Your task to perform on an android device: find photos in the google photos app Image 0: 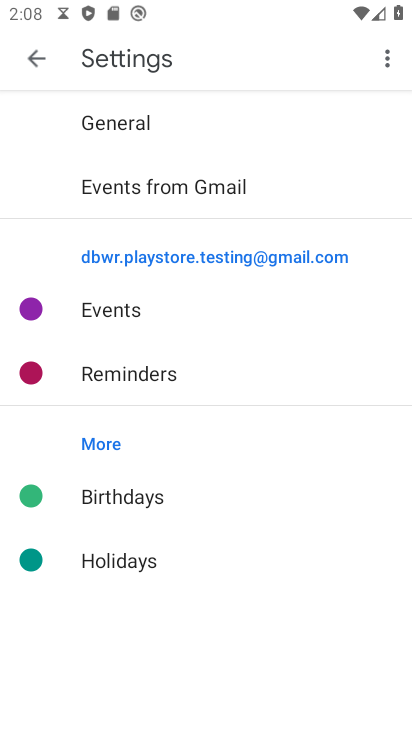
Step 0: press back button
Your task to perform on an android device: find photos in the google photos app Image 1: 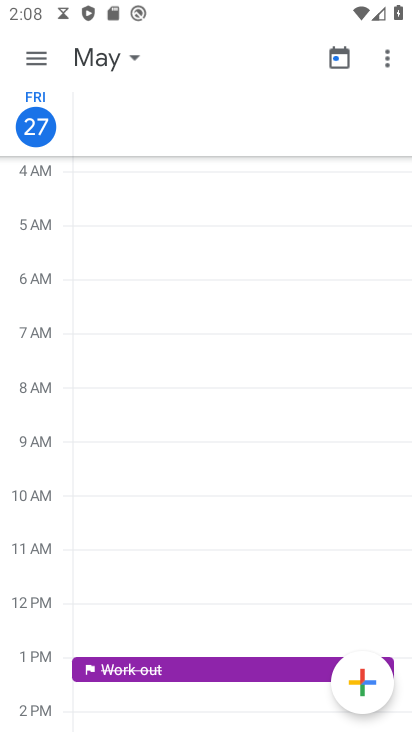
Step 1: press home button
Your task to perform on an android device: find photos in the google photos app Image 2: 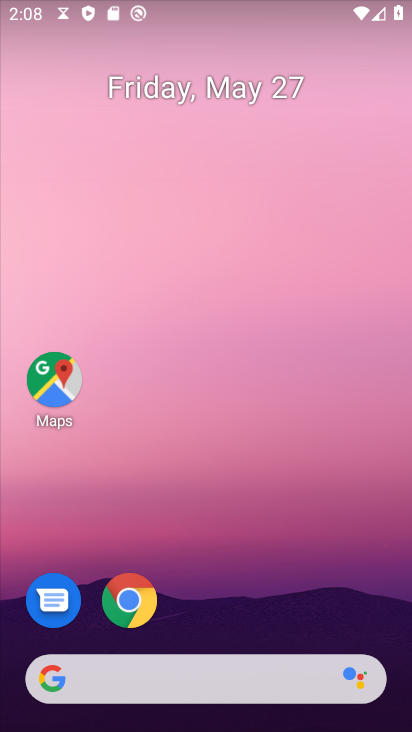
Step 2: drag from (245, 558) to (218, 0)
Your task to perform on an android device: find photos in the google photos app Image 3: 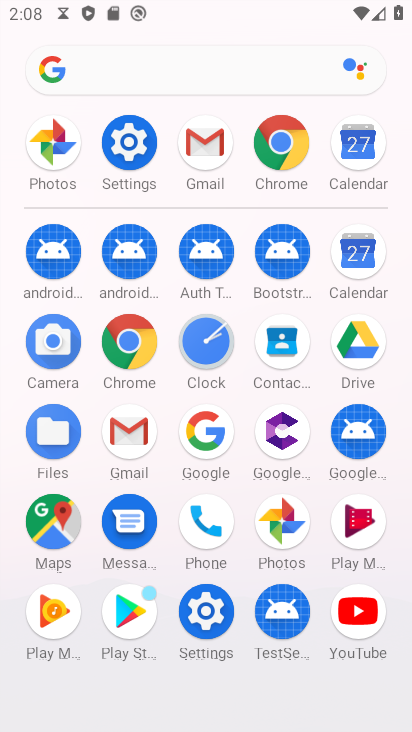
Step 3: click (282, 517)
Your task to perform on an android device: find photos in the google photos app Image 4: 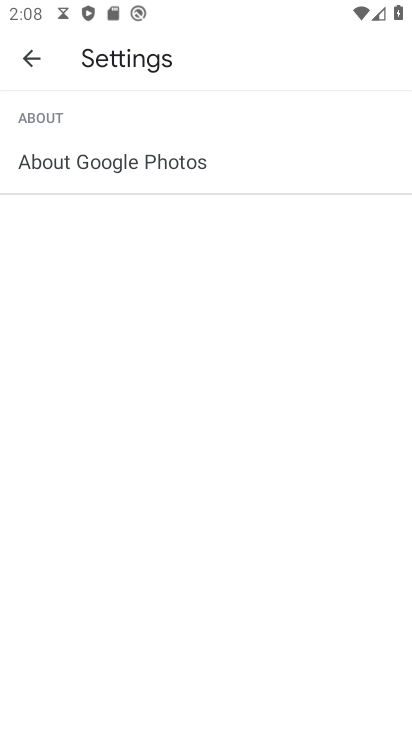
Step 4: click (33, 58)
Your task to perform on an android device: find photos in the google photos app Image 5: 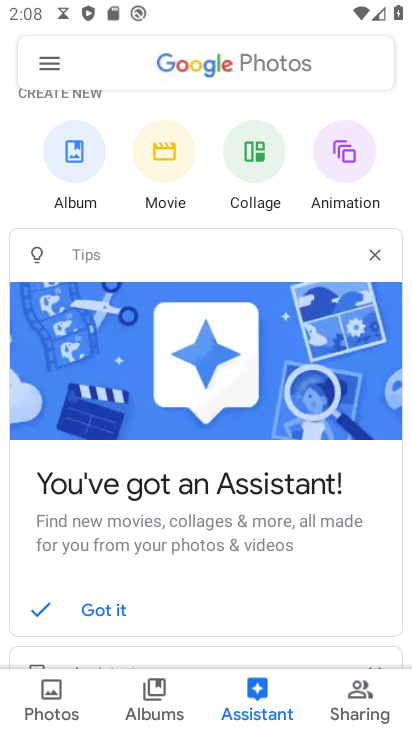
Step 5: click (52, 702)
Your task to perform on an android device: find photos in the google photos app Image 6: 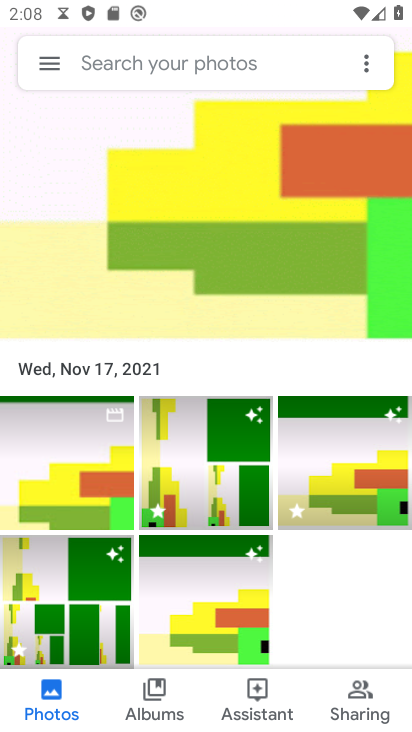
Step 6: task complete